Your task to perform on an android device: Open network settings Image 0: 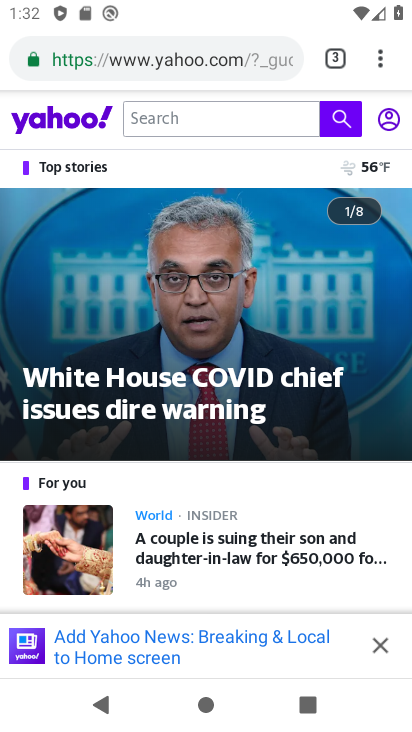
Step 0: press home button
Your task to perform on an android device: Open network settings Image 1: 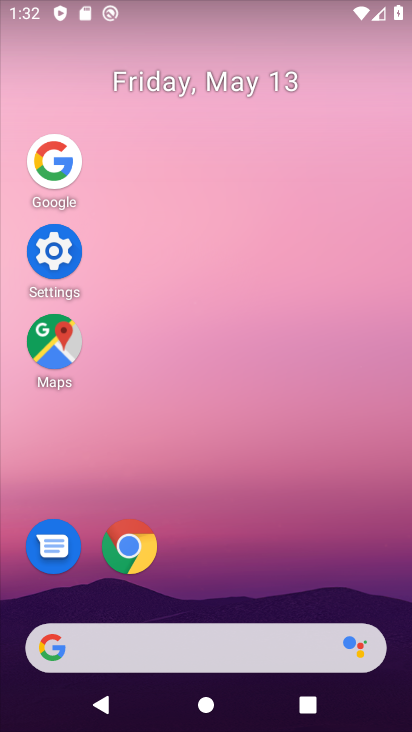
Step 1: click (54, 255)
Your task to perform on an android device: Open network settings Image 2: 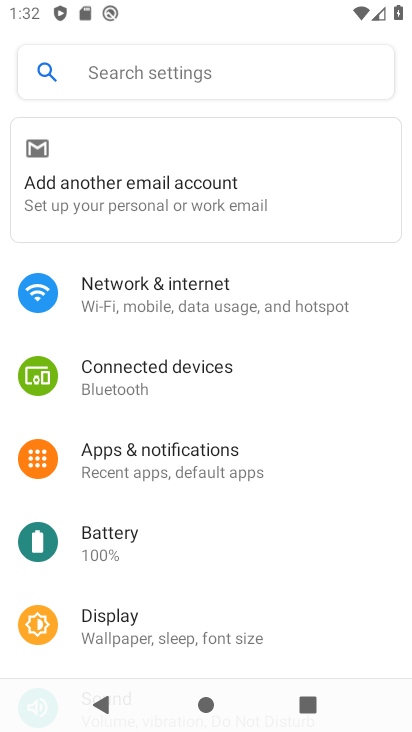
Step 2: click (199, 321)
Your task to perform on an android device: Open network settings Image 3: 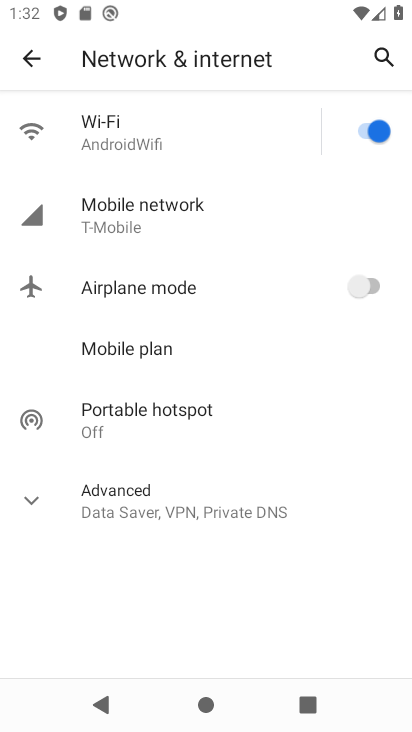
Step 3: click (189, 228)
Your task to perform on an android device: Open network settings Image 4: 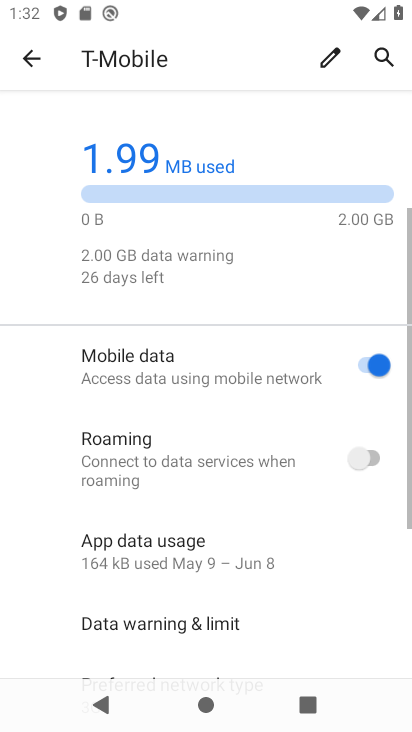
Step 4: task complete